Your task to perform on an android device: create a new album in the google photos Image 0: 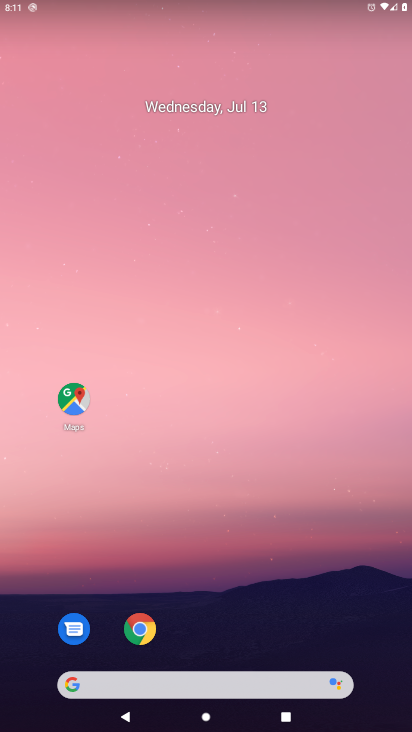
Step 0: click (157, 286)
Your task to perform on an android device: create a new album in the google photos Image 1: 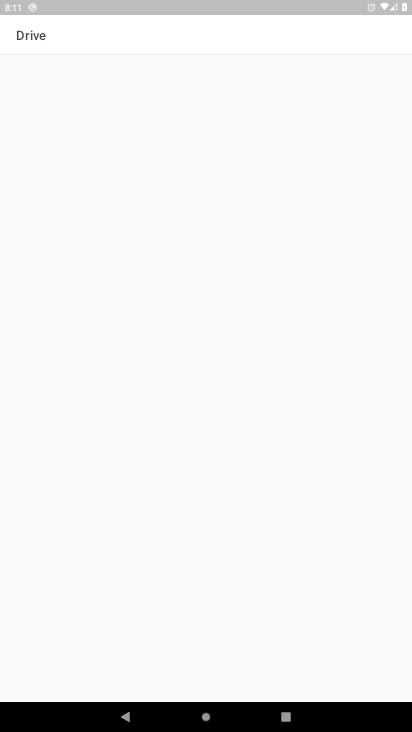
Step 1: press home button
Your task to perform on an android device: create a new album in the google photos Image 2: 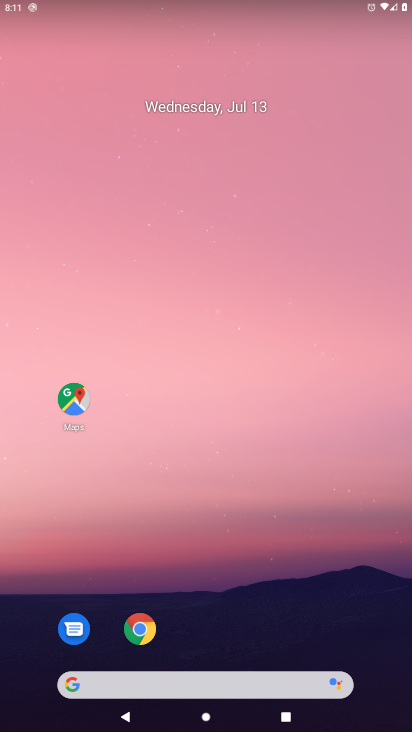
Step 2: drag from (73, 648) to (183, 194)
Your task to perform on an android device: create a new album in the google photos Image 3: 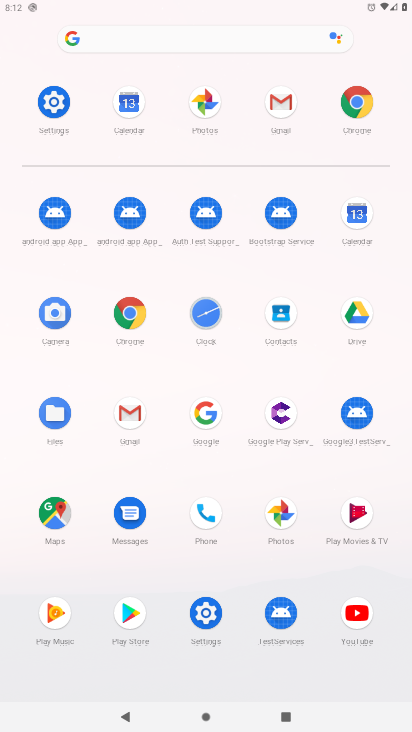
Step 3: click (264, 519)
Your task to perform on an android device: create a new album in the google photos Image 4: 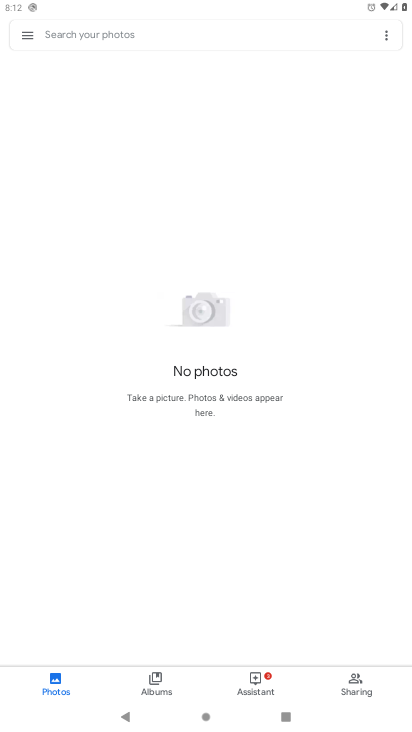
Step 4: click (148, 693)
Your task to perform on an android device: create a new album in the google photos Image 5: 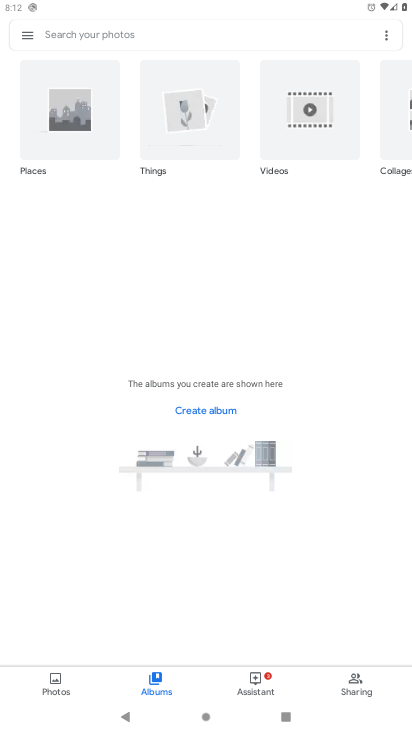
Step 5: click (377, 34)
Your task to perform on an android device: create a new album in the google photos Image 6: 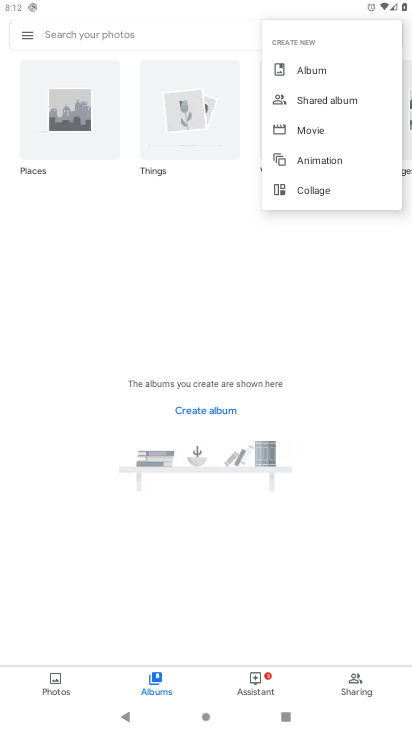
Step 6: click (304, 69)
Your task to perform on an android device: create a new album in the google photos Image 7: 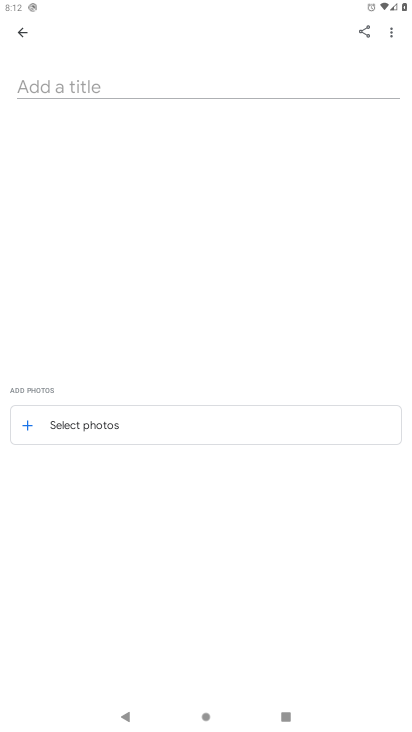
Step 7: click (51, 74)
Your task to perform on an android device: create a new album in the google photos Image 8: 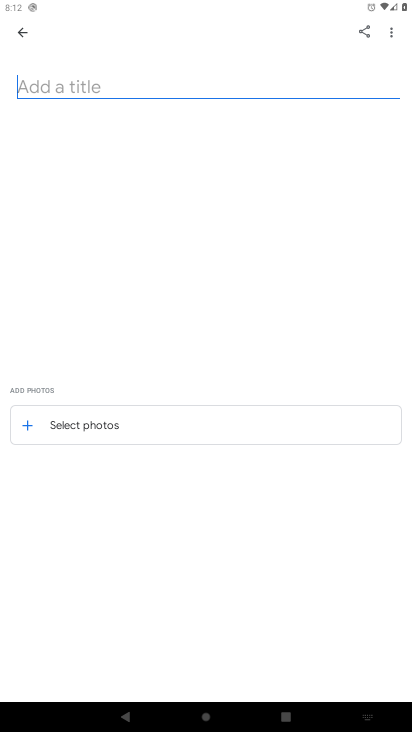
Step 8: type "xc"
Your task to perform on an android device: create a new album in the google photos Image 9: 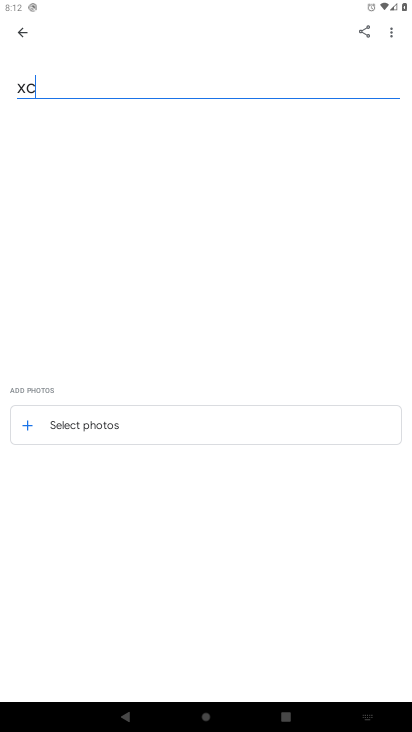
Step 9: type ""
Your task to perform on an android device: create a new album in the google photos Image 10: 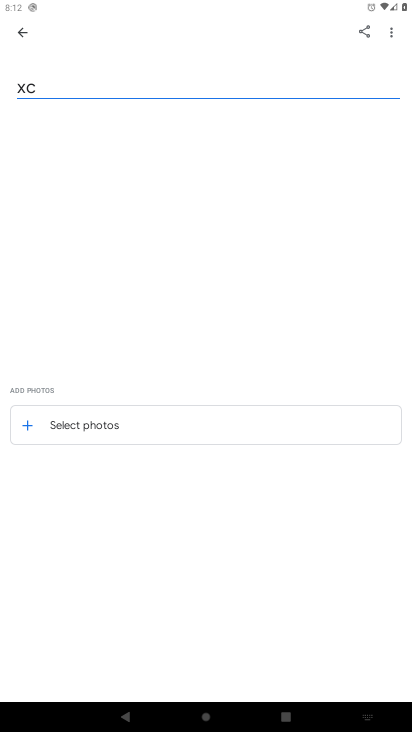
Step 10: click (131, 415)
Your task to perform on an android device: create a new album in the google photos Image 11: 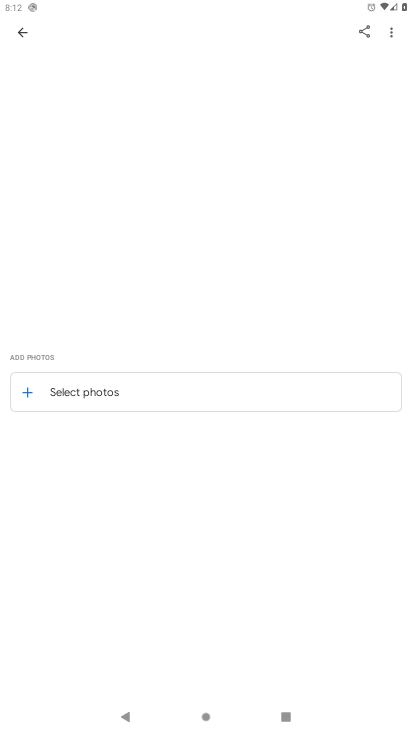
Step 11: click (124, 390)
Your task to perform on an android device: create a new album in the google photos Image 12: 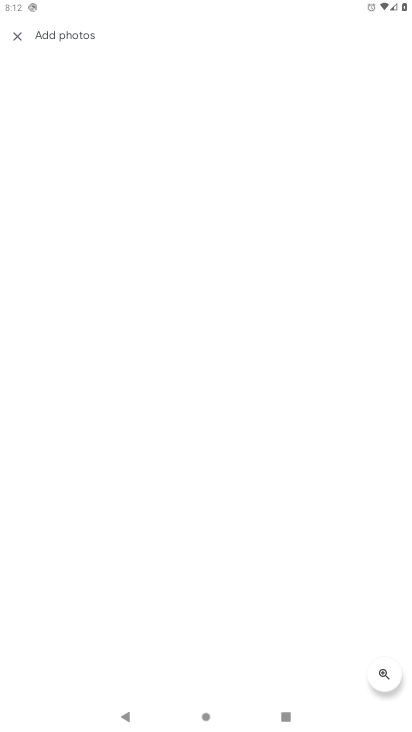
Step 12: task complete